Your task to perform on an android device: Clear all items from cart on newegg.com. Add panasonic triple a to the cart on newegg.com Image 0: 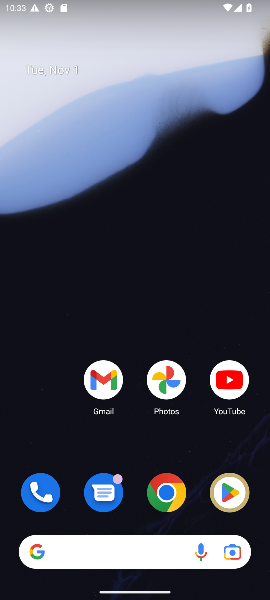
Step 0: click (160, 487)
Your task to perform on an android device: Clear all items from cart on newegg.com. Add panasonic triple a to the cart on newegg.com Image 1: 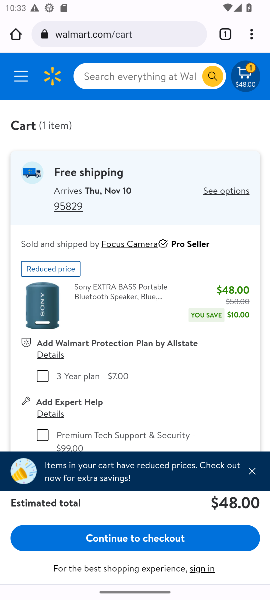
Step 1: click (79, 35)
Your task to perform on an android device: Clear all items from cart on newegg.com. Add panasonic triple a to the cart on newegg.com Image 2: 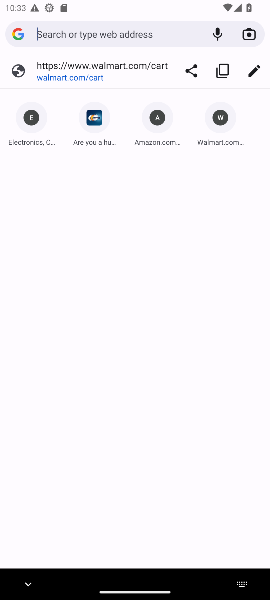
Step 2: type "newegg.com"
Your task to perform on an android device: Clear all items from cart on newegg.com. Add panasonic triple a to the cart on newegg.com Image 3: 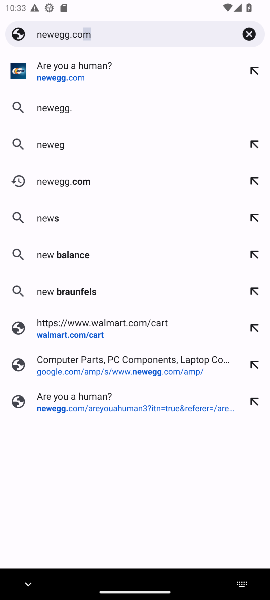
Step 3: type ""
Your task to perform on an android device: Clear all items from cart on newegg.com. Add panasonic triple a to the cart on newegg.com Image 4: 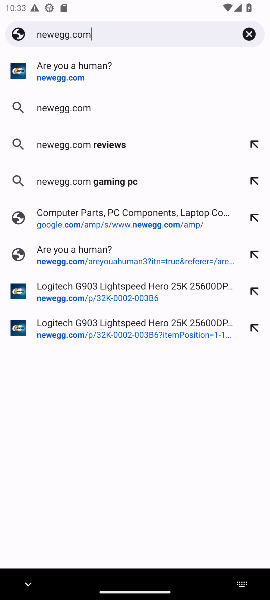
Step 4: click (45, 85)
Your task to perform on an android device: Clear all items from cart on newegg.com. Add panasonic triple a to the cart on newegg.com Image 5: 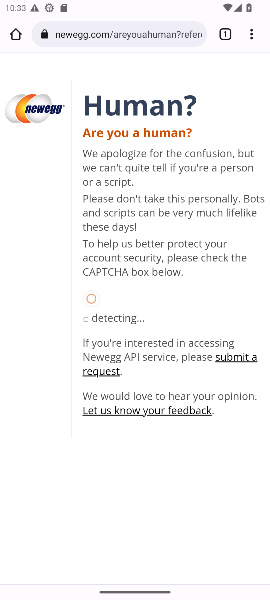
Step 5: press back button
Your task to perform on an android device: Clear all items from cart on newegg.com. Add panasonic triple a to the cart on newegg.com Image 6: 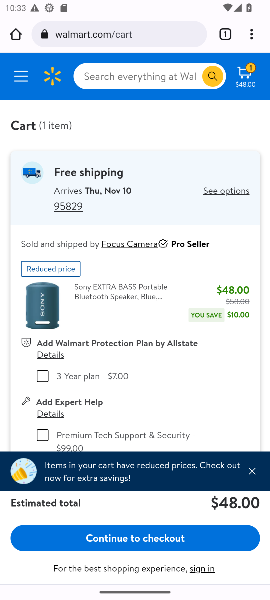
Step 6: press home button
Your task to perform on an android device: Clear all items from cart on newegg.com. Add panasonic triple a to the cart on newegg.com Image 7: 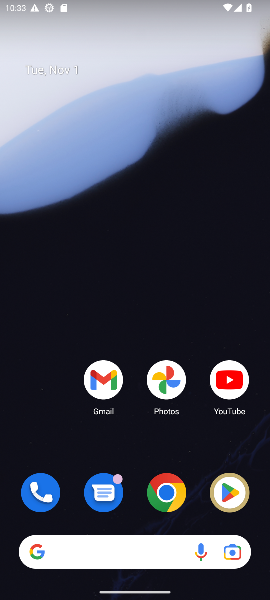
Step 7: click (167, 504)
Your task to perform on an android device: Clear all items from cart on newegg.com. Add panasonic triple a to the cart on newegg.com Image 8: 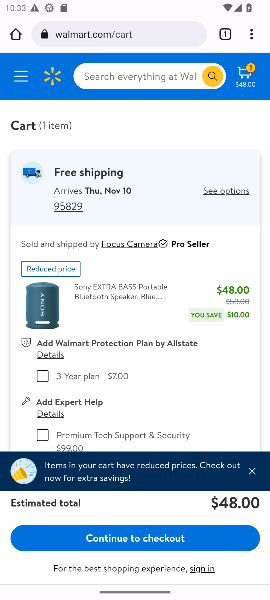
Step 8: click (100, 34)
Your task to perform on an android device: Clear all items from cart on newegg.com. Add panasonic triple a to the cart on newegg.com Image 9: 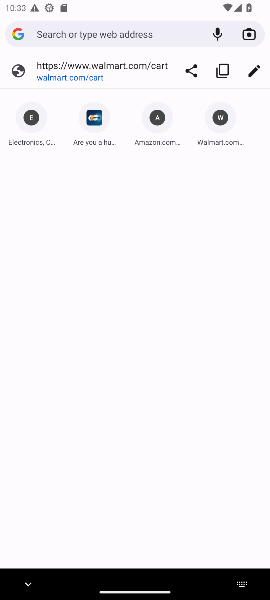
Step 9: type "newegg.com"
Your task to perform on an android device: Clear all items from cart on newegg.com. Add panasonic triple a to the cart on newegg.com Image 10: 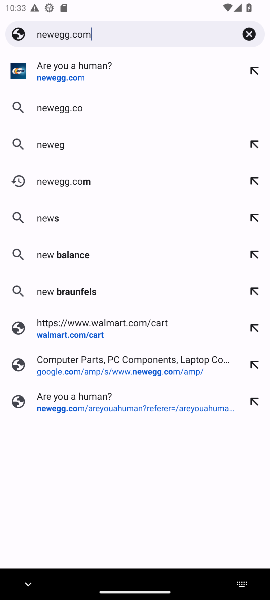
Step 10: type ""
Your task to perform on an android device: Clear all items from cart on newegg.com. Add panasonic triple a to the cart on newegg.com Image 11: 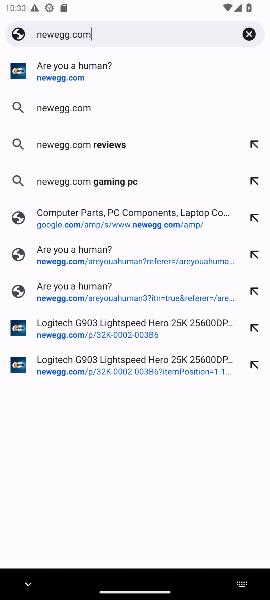
Step 11: click (57, 146)
Your task to perform on an android device: Clear all items from cart on newegg.com. Add panasonic triple a to the cart on newegg.com Image 12: 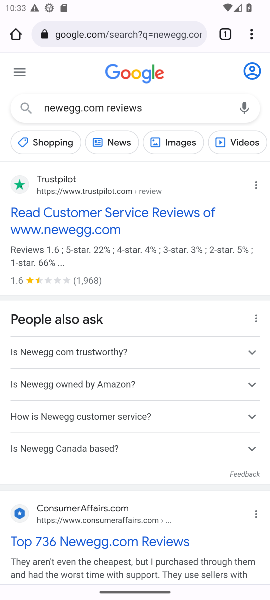
Step 12: drag from (79, 512) to (155, 128)
Your task to perform on an android device: Clear all items from cart on newegg.com. Add panasonic triple a to the cart on newegg.com Image 13: 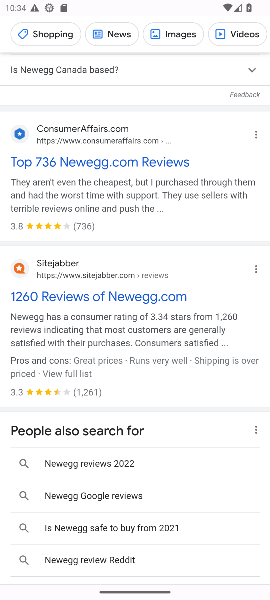
Step 13: click (77, 160)
Your task to perform on an android device: Clear all items from cart on newegg.com. Add panasonic triple a to the cart on newegg.com Image 14: 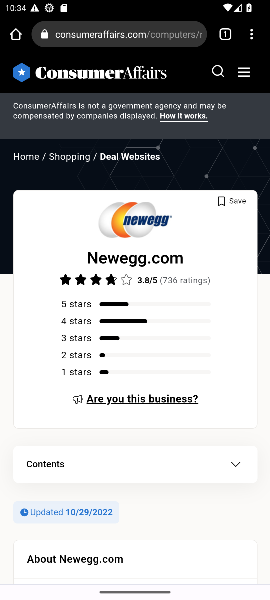
Step 14: drag from (197, 503) to (252, 39)
Your task to perform on an android device: Clear all items from cart on newegg.com. Add panasonic triple a to the cart on newegg.com Image 15: 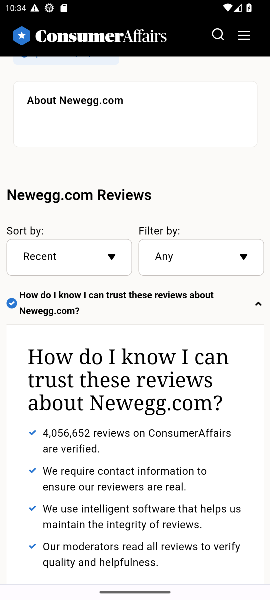
Step 15: press back button
Your task to perform on an android device: Clear all items from cart on newegg.com. Add panasonic triple a to the cart on newegg.com Image 16: 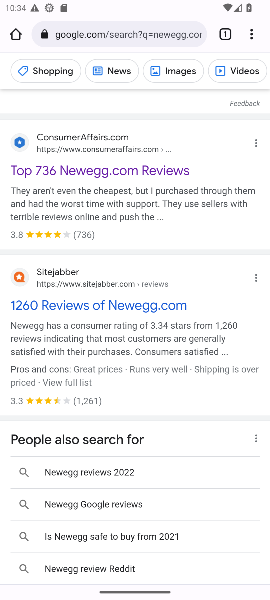
Step 16: drag from (93, 398) to (130, 97)
Your task to perform on an android device: Clear all items from cart on newegg.com. Add panasonic triple a to the cart on newegg.com Image 17: 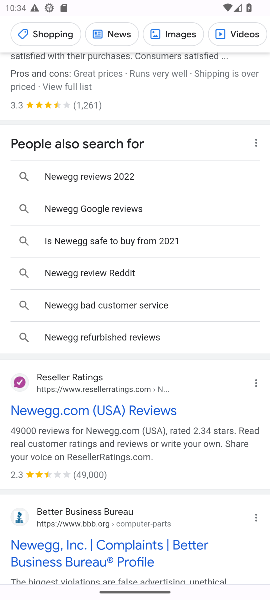
Step 17: click (41, 405)
Your task to perform on an android device: Clear all items from cart on newegg.com. Add panasonic triple a to the cart on newegg.com Image 18: 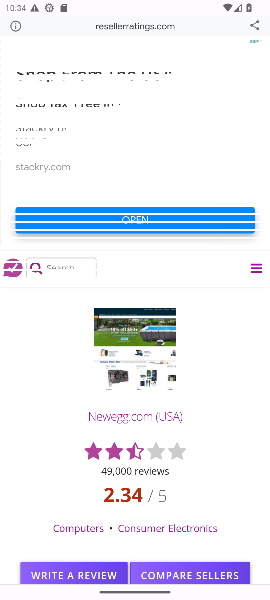
Step 18: press back button
Your task to perform on an android device: Clear all items from cart on newegg.com. Add panasonic triple a to the cart on newegg.com Image 19: 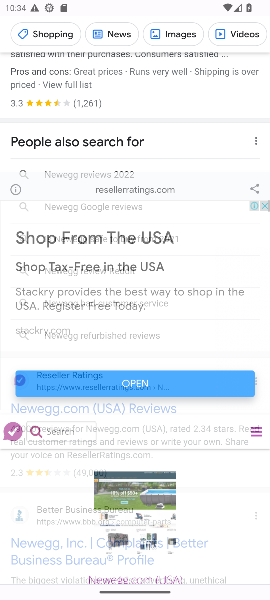
Step 19: click (23, 174)
Your task to perform on an android device: Clear all items from cart on newegg.com. Add panasonic triple a to the cart on newegg.com Image 20: 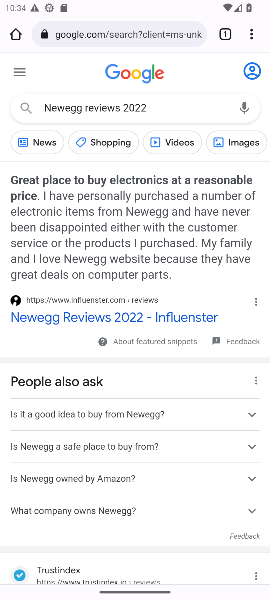
Step 20: drag from (101, 506) to (115, 164)
Your task to perform on an android device: Clear all items from cart on newegg.com. Add panasonic triple a to the cart on newegg.com Image 21: 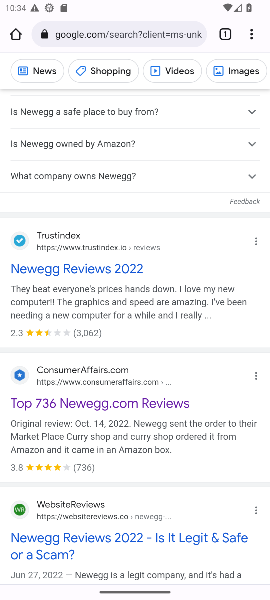
Step 21: drag from (91, 492) to (124, 192)
Your task to perform on an android device: Clear all items from cart on newegg.com. Add panasonic triple a to the cart on newegg.com Image 22: 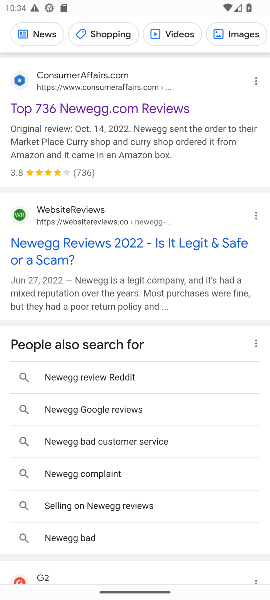
Step 22: drag from (82, 551) to (108, 323)
Your task to perform on an android device: Clear all items from cart on newegg.com. Add panasonic triple a to the cart on newegg.com Image 23: 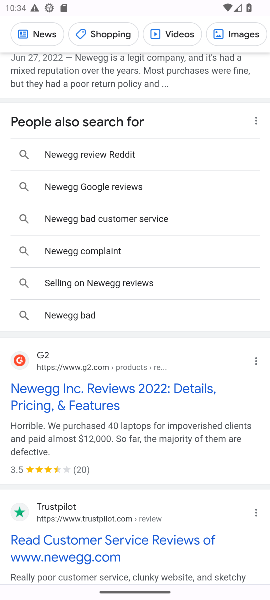
Step 23: click (43, 389)
Your task to perform on an android device: Clear all items from cart on newegg.com. Add panasonic triple a to the cart on newegg.com Image 24: 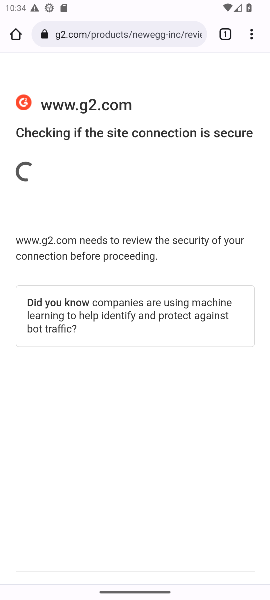
Step 24: press home button
Your task to perform on an android device: Clear all items from cart on newegg.com. Add panasonic triple a to the cart on newegg.com Image 25: 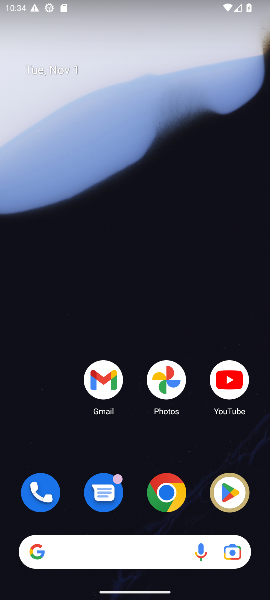
Step 25: click (167, 487)
Your task to perform on an android device: Clear all items from cart on newegg.com. Add panasonic triple a to the cart on newegg.com Image 26: 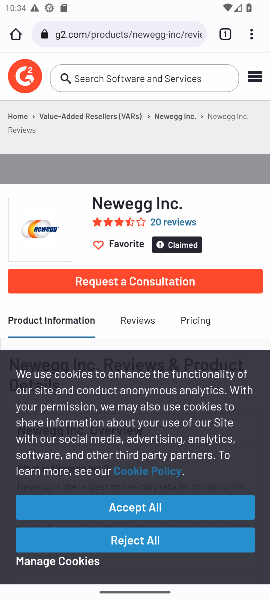
Step 26: click (112, 28)
Your task to perform on an android device: Clear all items from cart on newegg.com. Add panasonic triple a to the cart on newegg.com Image 27: 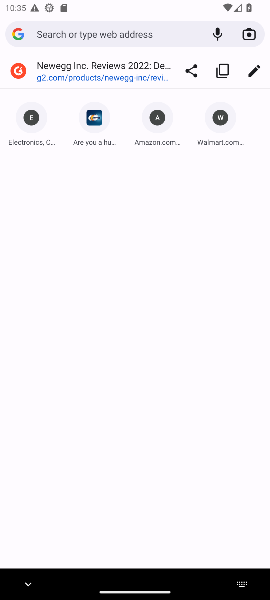
Step 27: type "newegg.com"
Your task to perform on an android device: Clear all items from cart on newegg.com. Add panasonic triple a to the cart on newegg.com Image 28: 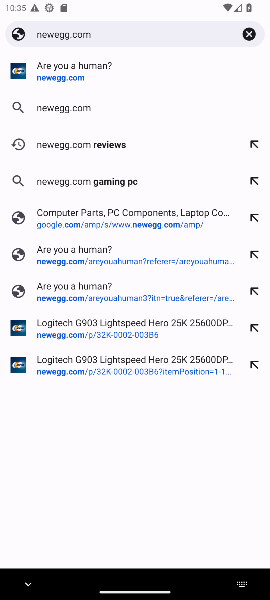
Step 28: click (53, 144)
Your task to perform on an android device: Clear all items from cart on newegg.com. Add panasonic triple a to the cart on newegg.com Image 29: 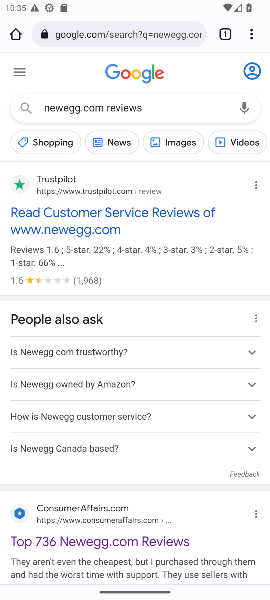
Step 29: click (77, 539)
Your task to perform on an android device: Clear all items from cart on newegg.com. Add panasonic triple a to the cart on newegg.com Image 30: 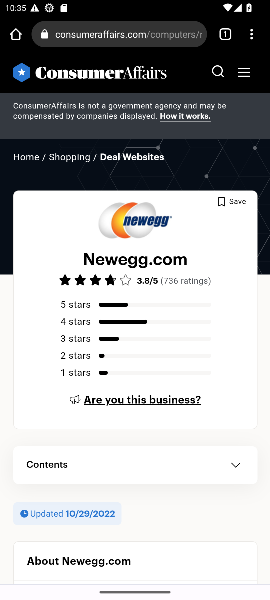
Step 30: click (216, 74)
Your task to perform on an android device: Clear all items from cart on newegg.com. Add panasonic triple a to the cart on newegg.com Image 31: 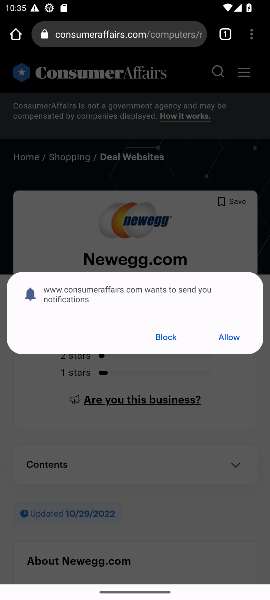
Step 31: click (225, 337)
Your task to perform on an android device: Clear all items from cart on newegg.com. Add panasonic triple a to the cart on newegg.com Image 32: 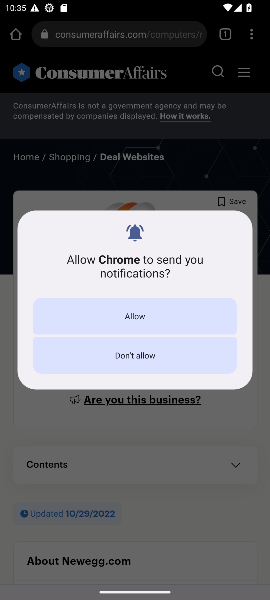
Step 32: click (130, 317)
Your task to perform on an android device: Clear all items from cart on newegg.com. Add panasonic triple a to the cart on newegg.com Image 33: 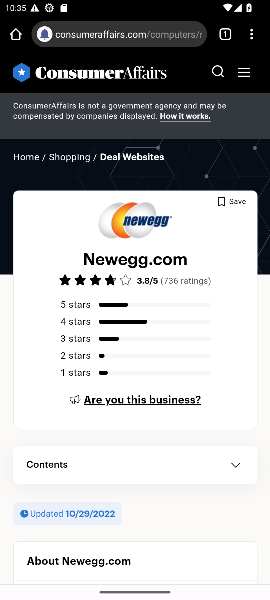
Step 33: click (212, 69)
Your task to perform on an android device: Clear all items from cart on newegg.com. Add panasonic triple a to the cart on newegg.com Image 34: 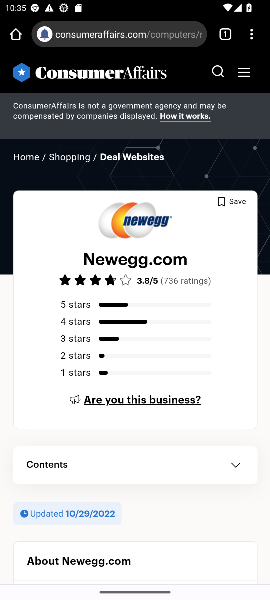
Step 34: click (209, 74)
Your task to perform on an android device: Clear all items from cart on newegg.com. Add panasonic triple a to the cart on newegg.com Image 35: 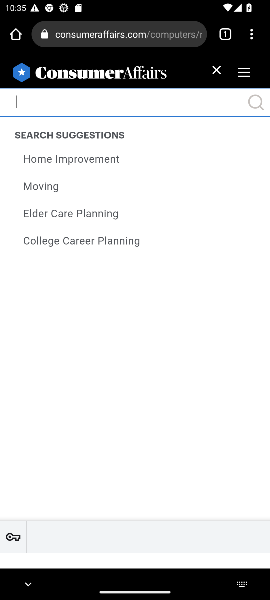
Step 35: type "panasonic triple"
Your task to perform on an android device: Clear all items from cart on newegg.com. Add panasonic triple a to the cart on newegg.com Image 36: 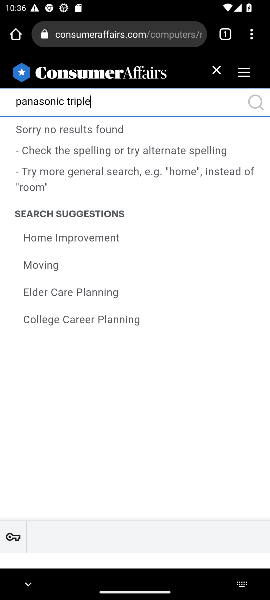
Step 36: press home button
Your task to perform on an android device: Clear all items from cart on newegg.com. Add panasonic triple a to the cart on newegg.com Image 37: 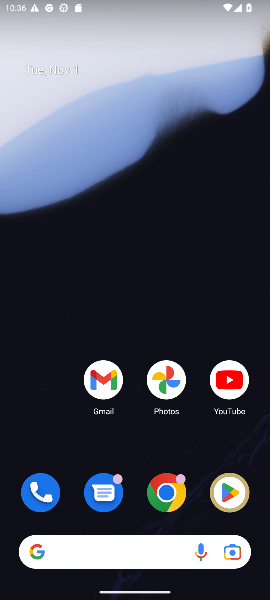
Step 37: click (166, 492)
Your task to perform on an android device: Clear all items from cart on newegg.com. Add panasonic triple a to the cart on newegg.com Image 38: 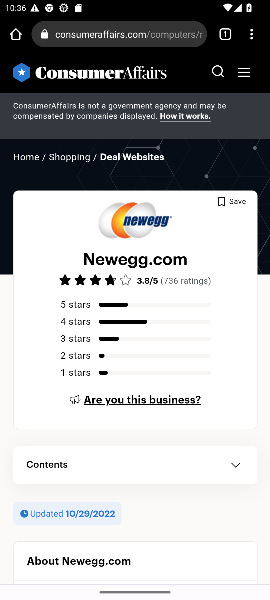
Step 38: click (93, 34)
Your task to perform on an android device: Clear all items from cart on newegg.com. Add panasonic triple a to the cart on newegg.com Image 39: 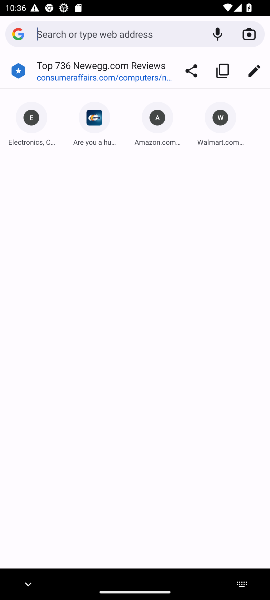
Step 39: type "newegg.com"
Your task to perform on an android device: Clear all items from cart on newegg.com. Add panasonic triple a to the cart on newegg.com Image 40: 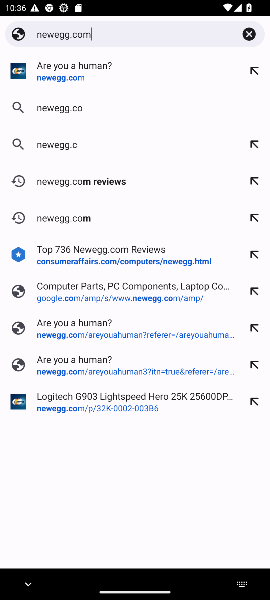
Step 40: type ""
Your task to perform on an android device: Clear all items from cart on newegg.com. Add panasonic triple a to the cart on newegg.com Image 41: 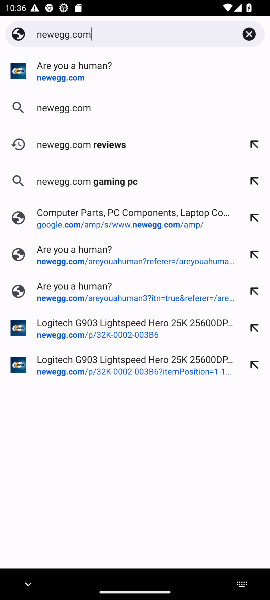
Step 41: click (52, 70)
Your task to perform on an android device: Clear all items from cart on newegg.com. Add panasonic triple a to the cart on newegg.com Image 42: 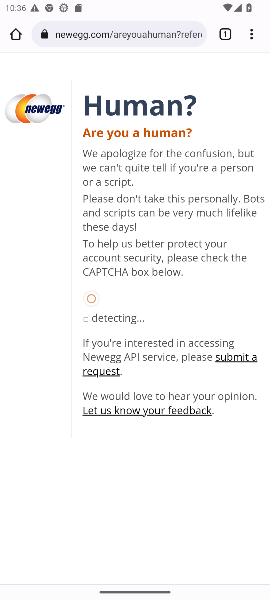
Step 42: press home button
Your task to perform on an android device: Clear all items from cart on newegg.com. Add panasonic triple a to the cart on newegg.com Image 43: 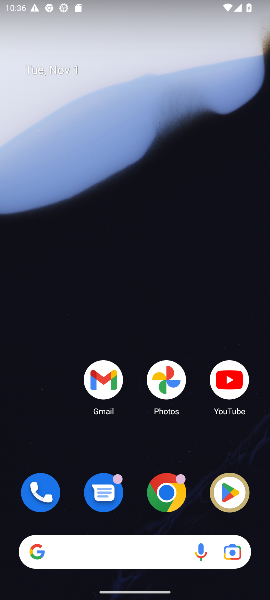
Step 43: click (170, 498)
Your task to perform on an android device: Clear all items from cart on newegg.com. Add panasonic triple a to the cart on newegg.com Image 44: 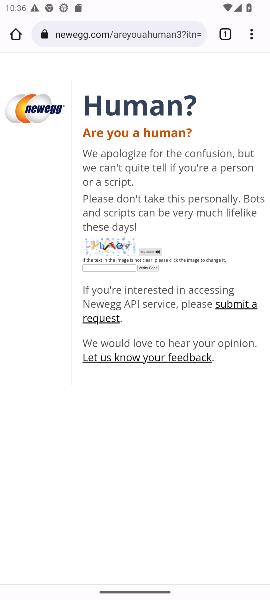
Step 44: press back button
Your task to perform on an android device: Clear all items from cart on newegg.com. Add panasonic triple a to the cart on newegg.com Image 45: 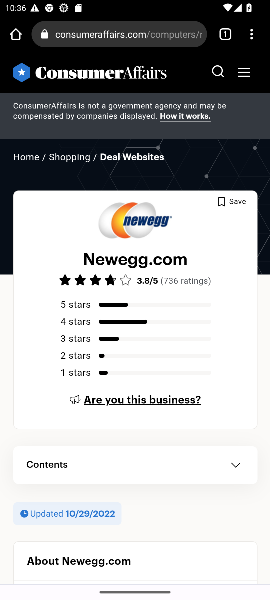
Step 45: press home button
Your task to perform on an android device: Clear all items from cart on newegg.com. Add panasonic triple a to the cart on newegg.com Image 46: 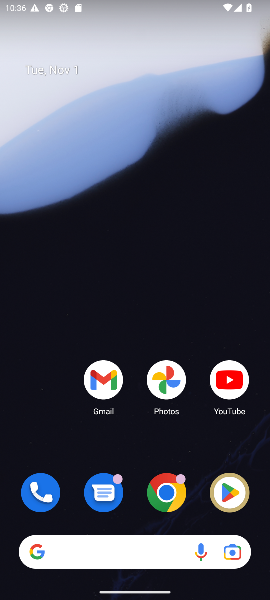
Step 46: click (164, 508)
Your task to perform on an android device: Clear all items from cart on newegg.com. Add panasonic triple a to the cart on newegg.com Image 47: 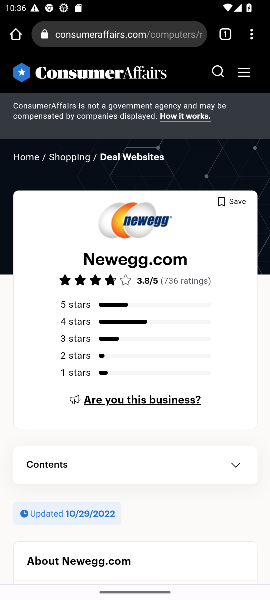
Step 47: click (114, 39)
Your task to perform on an android device: Clear all items from cart on newegg.com. Add panasonic triple a to the cart on newegg.com Image 48: 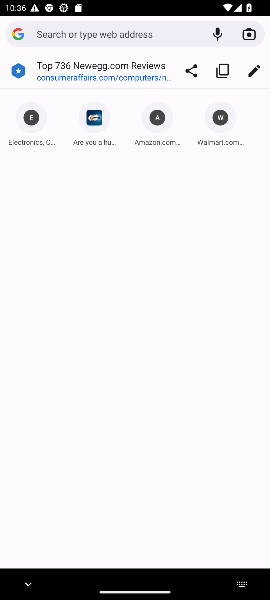
Step 48: type "newegg.com"
Your task to perform on an android device: Clear all items from cart on newegg.com. Add panasonic triple a to the cart on newegg.com Image 49: 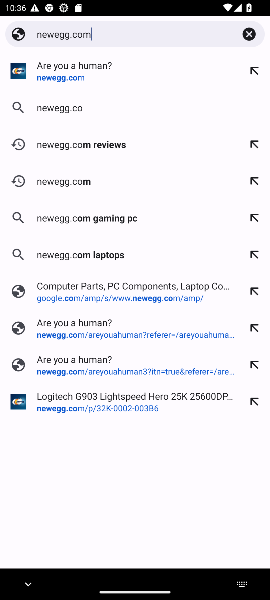
Step 49: type ""
Your task to perform on an android device: Clear all items from cart on newegg.com. Add panasonic triple a to the cart on newegg.com Image 50: 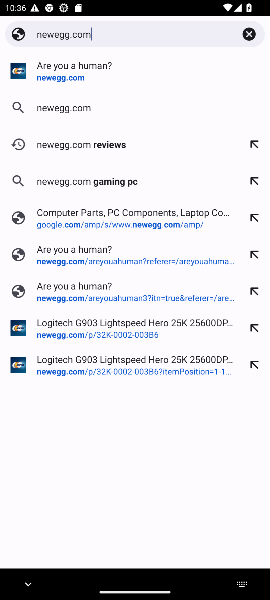
Step 50: click (58, 339)
Your task to perform on an android device: Clear all items from cart on newegg.com. Add panasonic triple a to the cart on newegg.com Image 51: 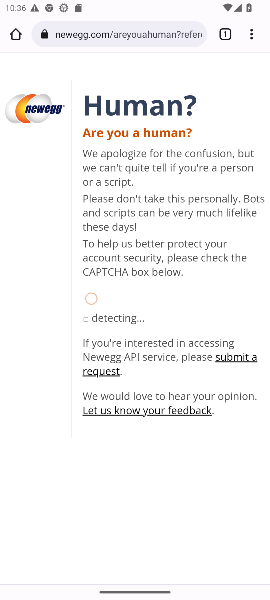
Step 51: press home button
Your task to perform on an android device: Clear all items from cart on newegg.com. Add panasonic triple a to the cart on newegg.com Image 52: 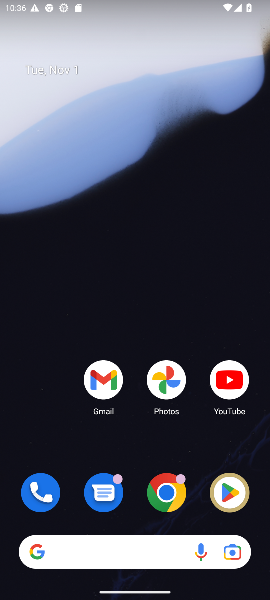
Step 52: click (162, 505)
Your task to perform on an android device: Clear all items from cart on newegg.com. Add panasonic triple a to the cart on newegg.com Image 53: 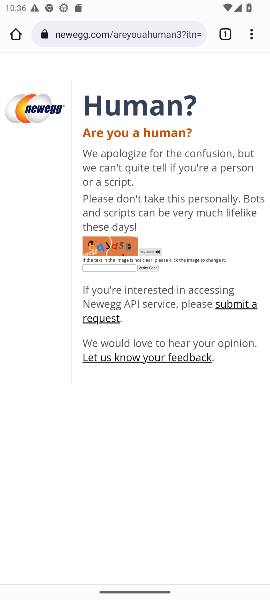
Step 53: click (102, 33)
Your task to perform on an android device: Clear all items from cart on newegg.com. Add panasonic triple a to the cart on newegg.com Image 54: 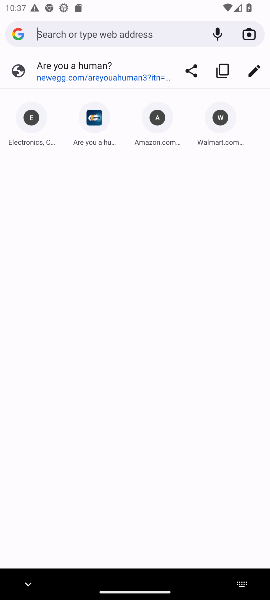
Step 54: type "newegg.com"
Your task to perform on an android device: Clear all items from cart on newegg.com. Add panasonic triple a to the cart on newegg.com Image 55: 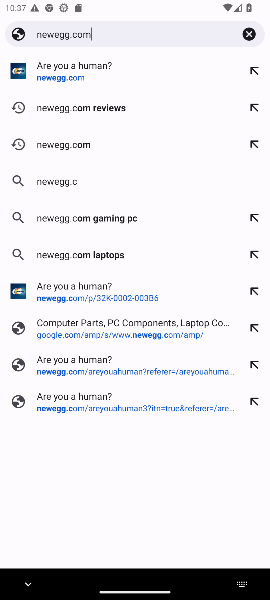
Step 55: type ""
Your task to perform on an android device: Clear all items from cart on newegg.com. Add panasonic triple a to the cart on newegg.com Image 56: 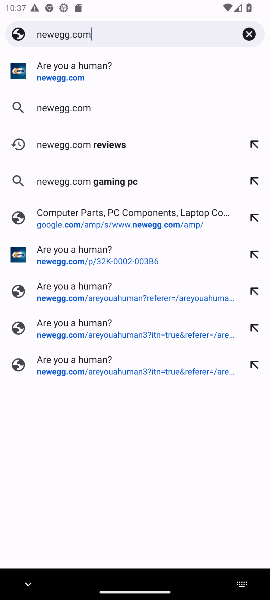
Step 56: click (63, 105)
Your task to perform on an android device: Clear all items from cart on newegg.com. Add panasonic triple a to the cart on newegg.com Image 57: 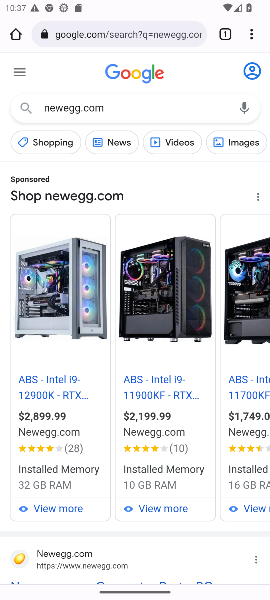
Step 57: drag from (82, 512) to (153, 105)
Your task to perform on an android device: Clear all items from cart on newegg.com. Add panasonic triple a to the cart on newegg.com Image 58: 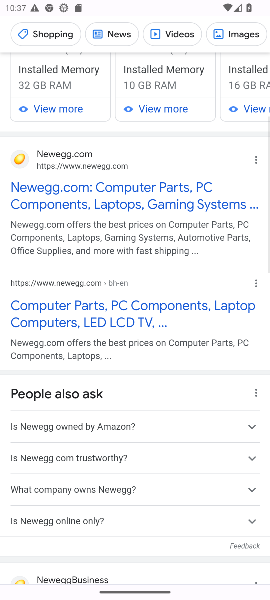
Step 58: drag from (116, 496) to (153, 98)
Your task to perform on an android device: Clear all items from cart on newegg.com. Add panasonic triple a to the cart on newegg.com Image 59: 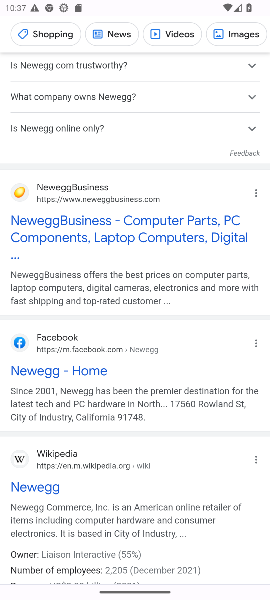
Step 59: click (41, 376)
Your task to perform on an android device: Clear all items from cart on newegg.com. Add panasonic triple a to the cart on newegg.com Image 60: 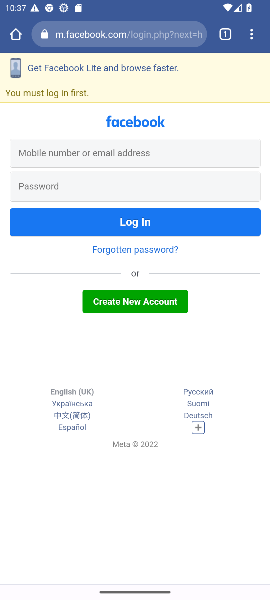
Step 60: press back button
Your task to perform on an android device: Clear all items from cart on newegg.com. Add panasonic triple a to the cart on newegg.com Image 61: 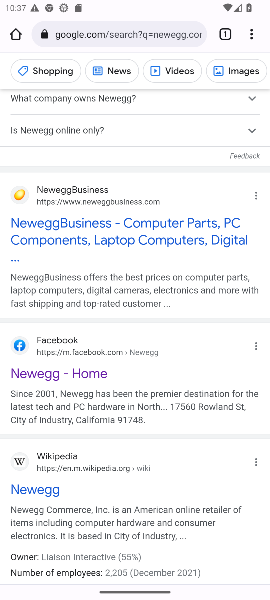
Step 61: drag from (126, 541) to (186, 126)
Your task to perform on an android device: Clear all items from cart on newegg.com. Add panasonic triple a to the cart on newegg.com Image 62: 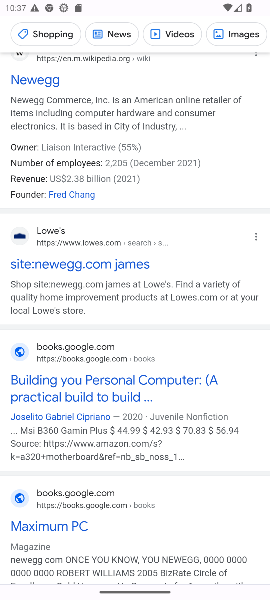
Step 62: drag from (70, 532) to (153, 94)
Your task to perform on an android device: Clear all items from cart on newegg.com. Add panasonic triple a to the cart on newegg.com Image 63: 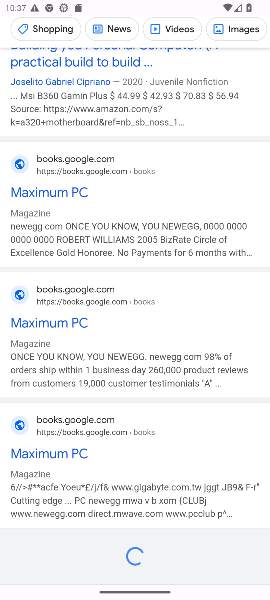
Step 63: drag from (43, 497) to (103, 220)
Your task to perform on an android device: Clear all items from cart on newegg.com. Add panasonic triple a to the cart on newegg.com Image 64: 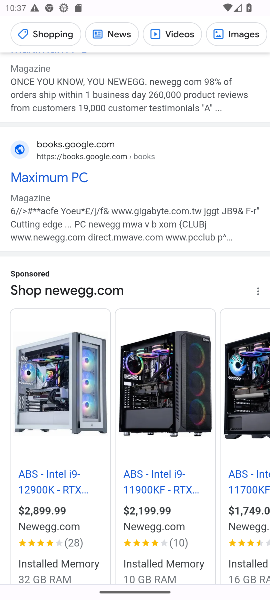
Step 64: drag from (52, 495) to (125, 127)
Your task to perform on an android device: Clear all items from cart on newegg.com. Add panasonic triple a to the cart on newegg.com Image 65: 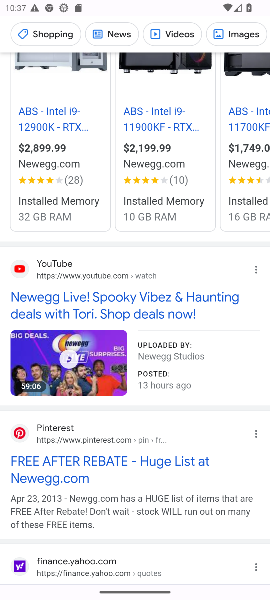
Step 65: drag from (77, 524) to (164, 160)
Your task to perform on an android device: Clear all items from cart on newegg.com. Add panasonic triple a to the cart on newegg.com Image 66: 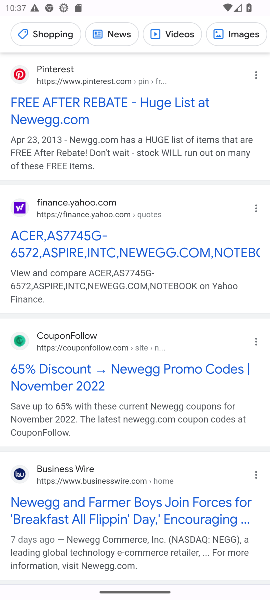
Step 66: click (44, 501)
Your task to perform on an android device: Clear all items from cart on newegg.com. Add panasonic triple a to the cart on newegg.com Image 67: 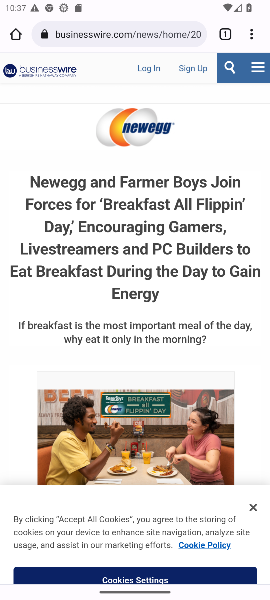
Step 67: press home button
Your task to perform on an android device: Clear all items from cart on newegg.com. Add panasonic triple a to the cart on newegg.com Image 68: 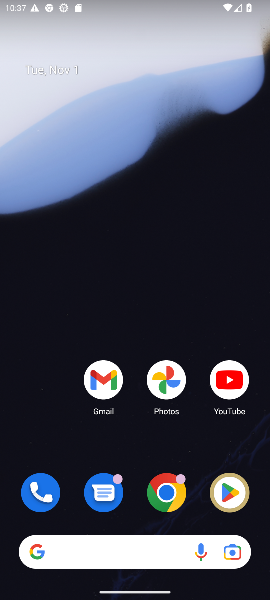
Step 68: click (174, 498)
Your task to perform on an android device: Clear all items from cart on newegg.com. Add panasonic triple a to the cart on newegg.com Image 69: 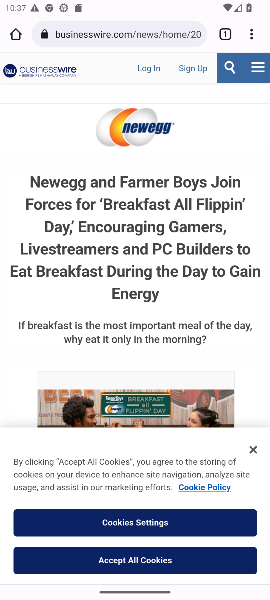
Step 69: click (254, 450)
Your task to perform on an android device: Clear all items from cart on newegg.com. Add panasonic triple a to the cart on newegg.com Image 70: 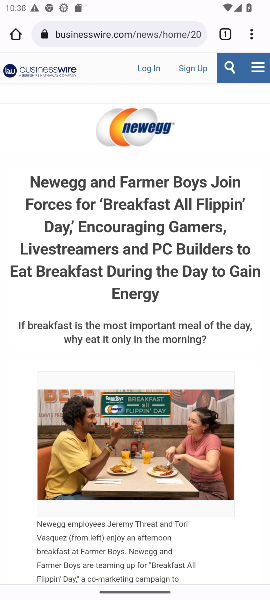
Step 70: task complete